Your task to perform on an android device: open a bookmark in the chrome app Image 0: 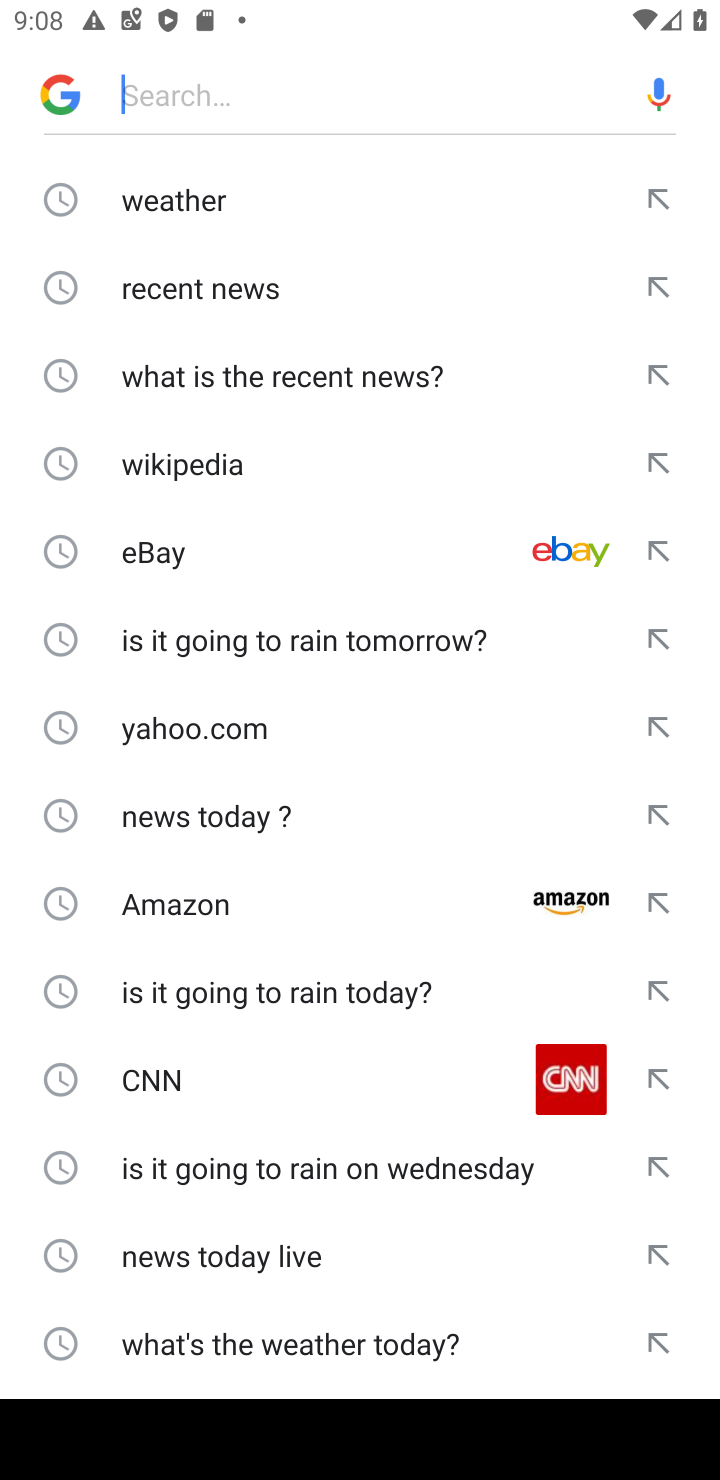
Step 0: press home button
Your task to perform on an android device: open a bookmark in the chrome app Image 1: 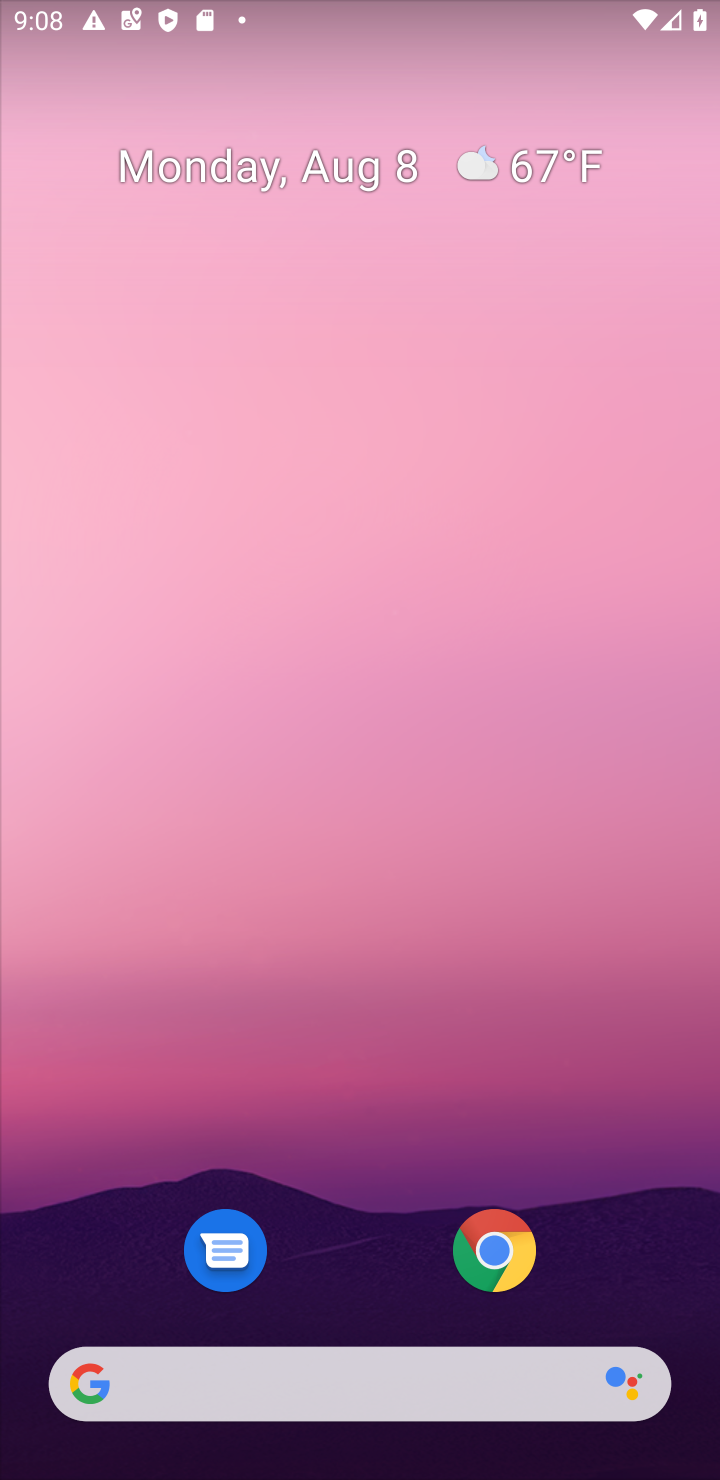
Step 1: click (523, 1274)
Your task to perform on an android device: open a bookmark in the chrome app Image 2: 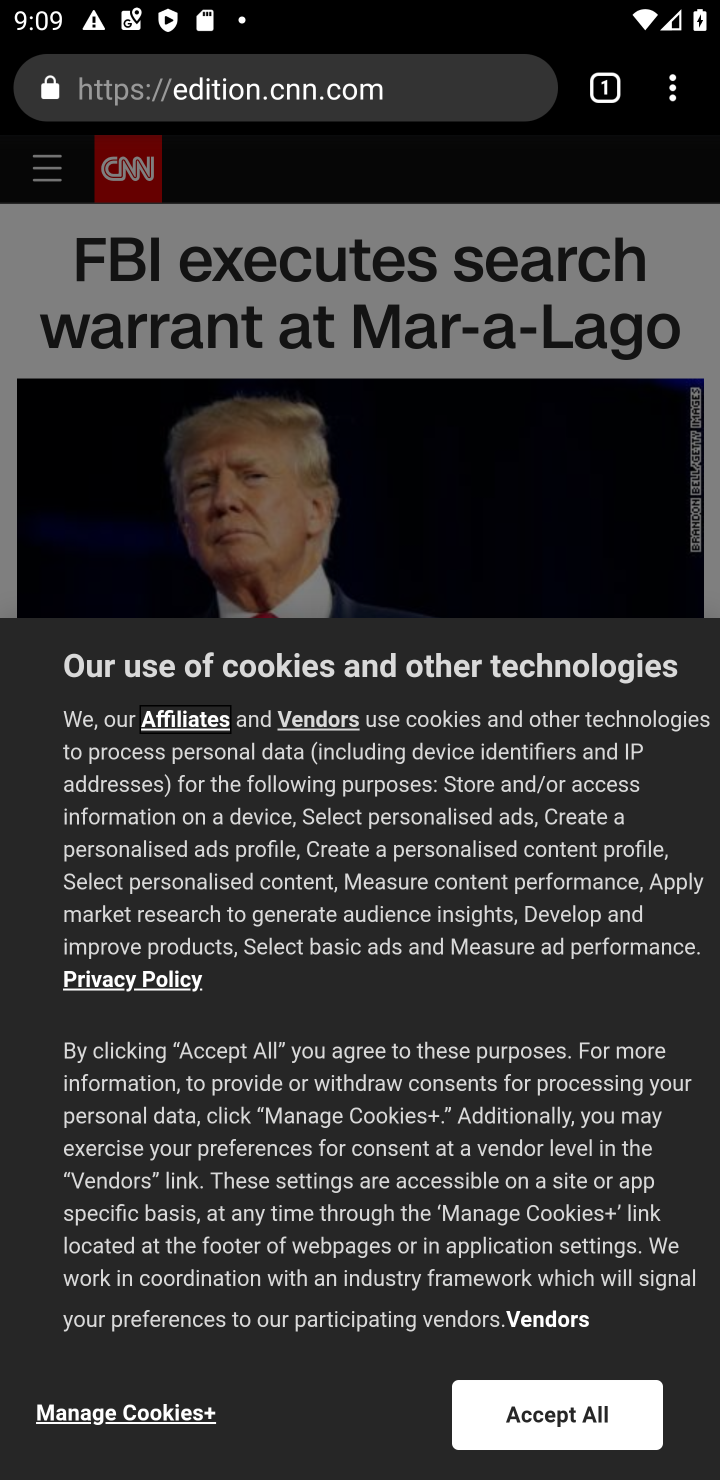
Step 2: click (665, 104)
Your task to perform on an android device: open a bookmark in the chrome app Image 3: 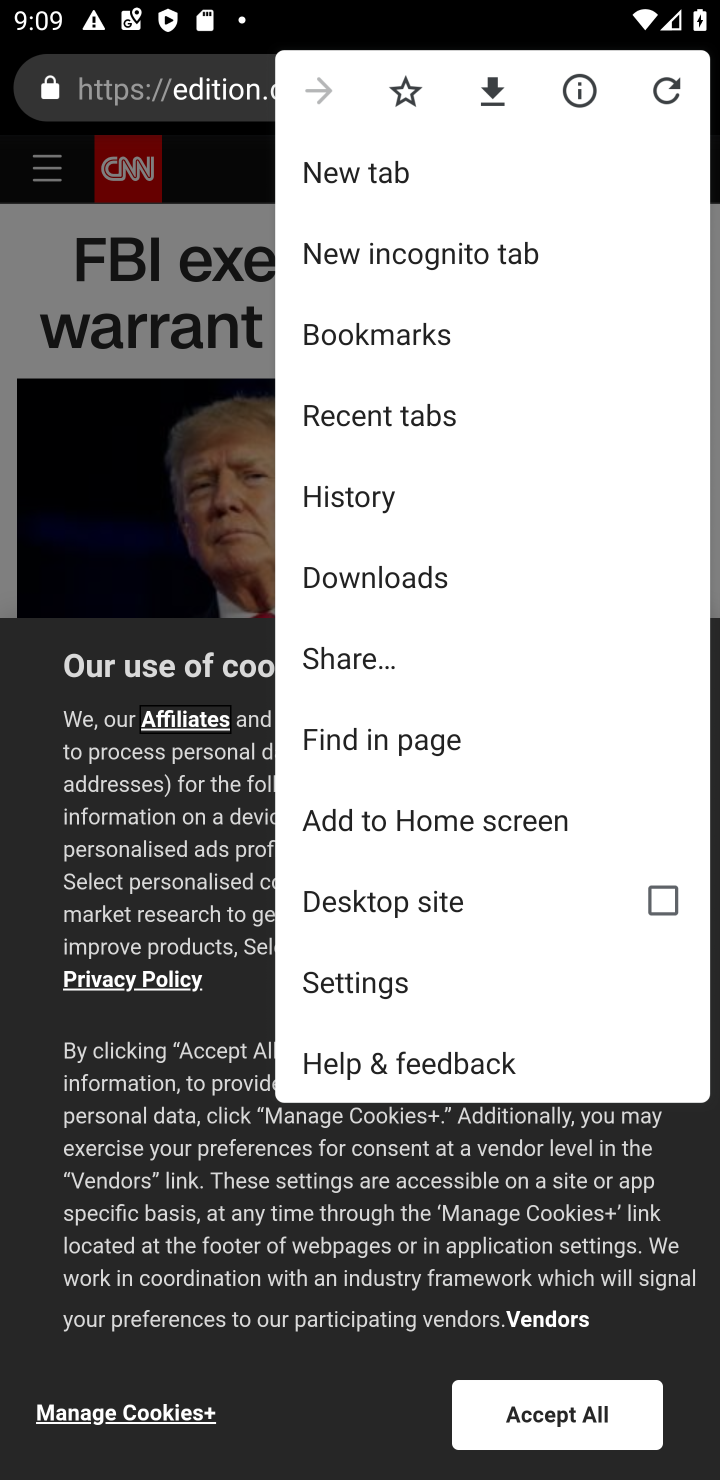
Step 3: click (341, 347)
Your task to perform on an android device: open a bookmark in the chrome app Image 4: 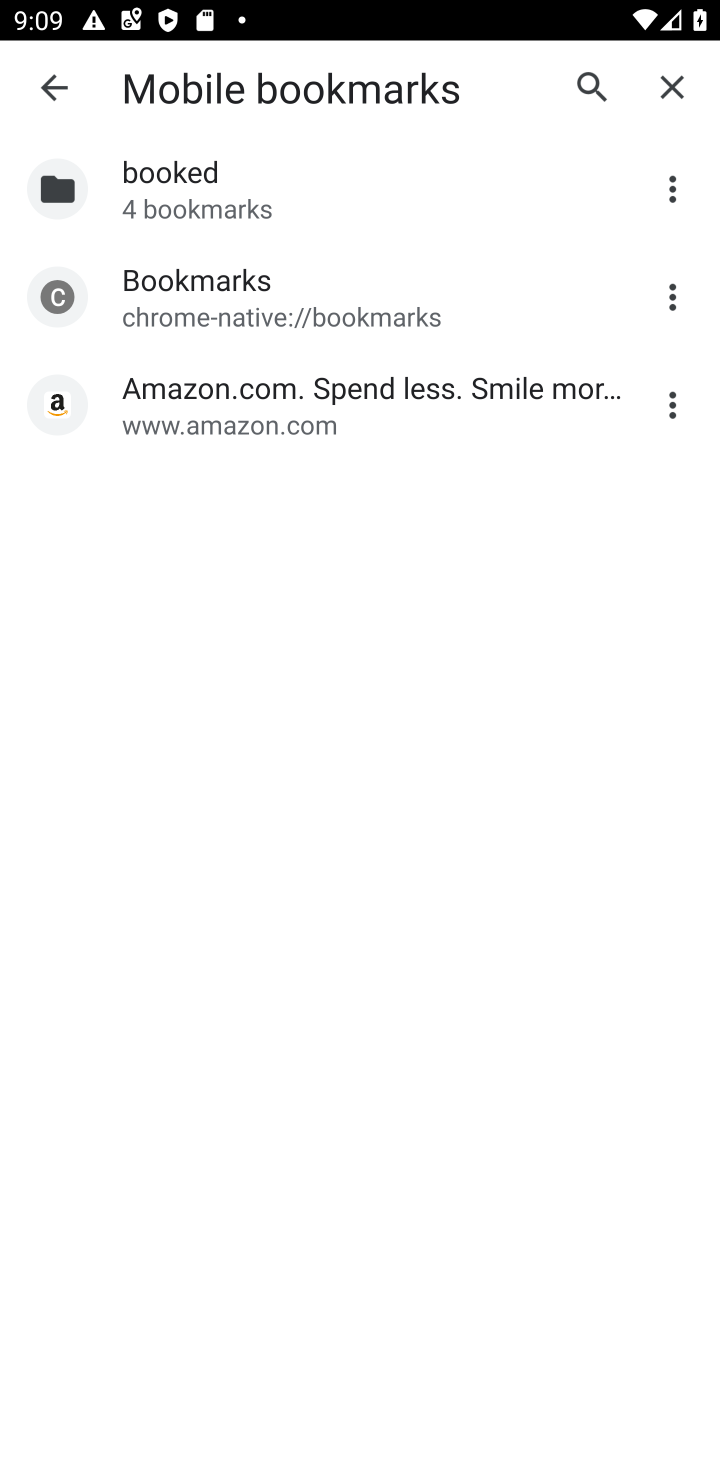
Step 4: click (356, 389)
Your task to perform on an android device: open a bookmark in the chrome app Image 5: 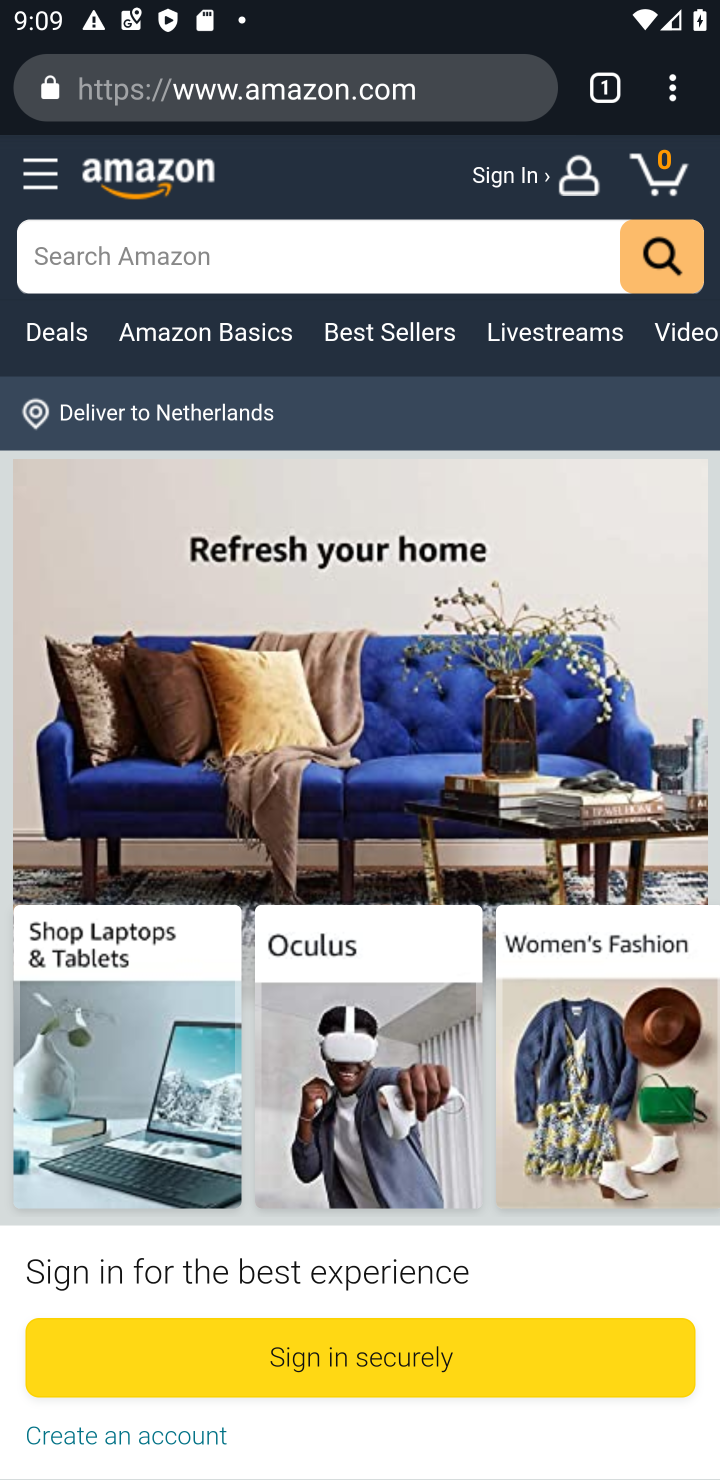
Step 5: task complete